Your task to perform on an android device: set an alarm Image 0: 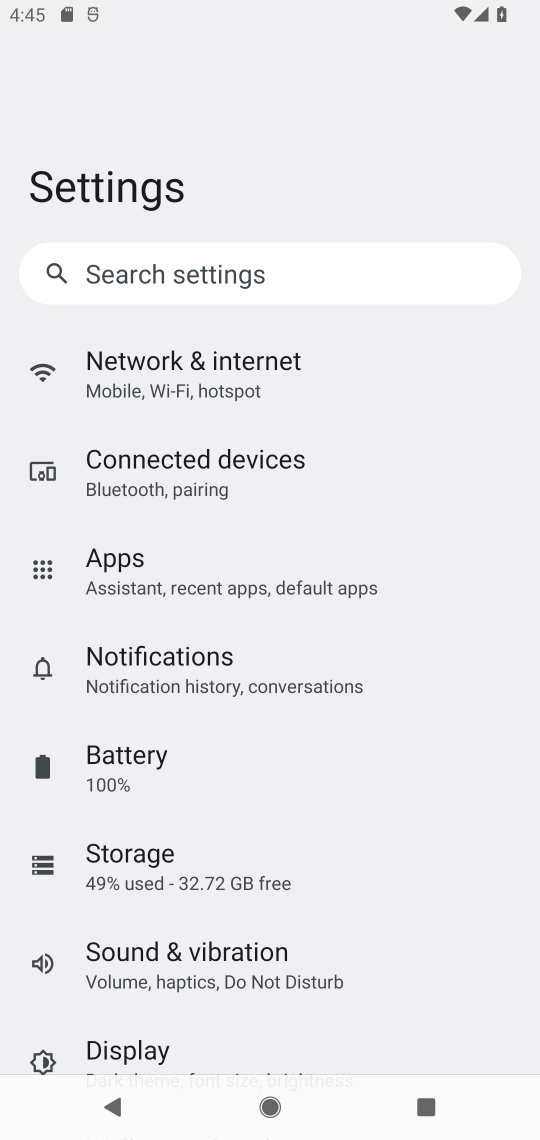
Step 0: press home button
Your task to perform on an android device: set an alarm Image 1: 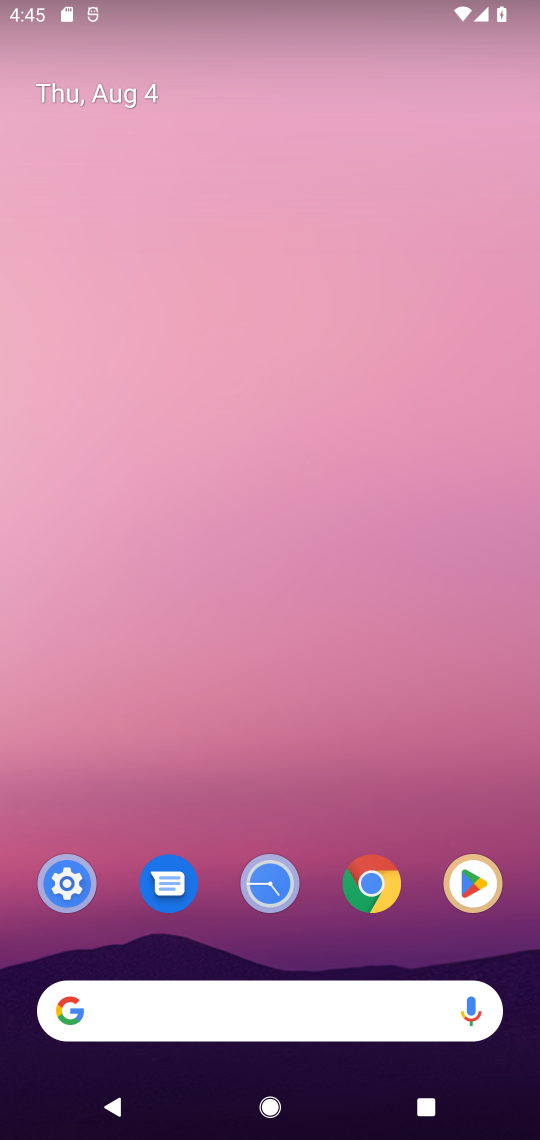
Step 1: drag from (232, 1055) to (363, 28)
Your task to perform on an android device: set an alarm Image 2: 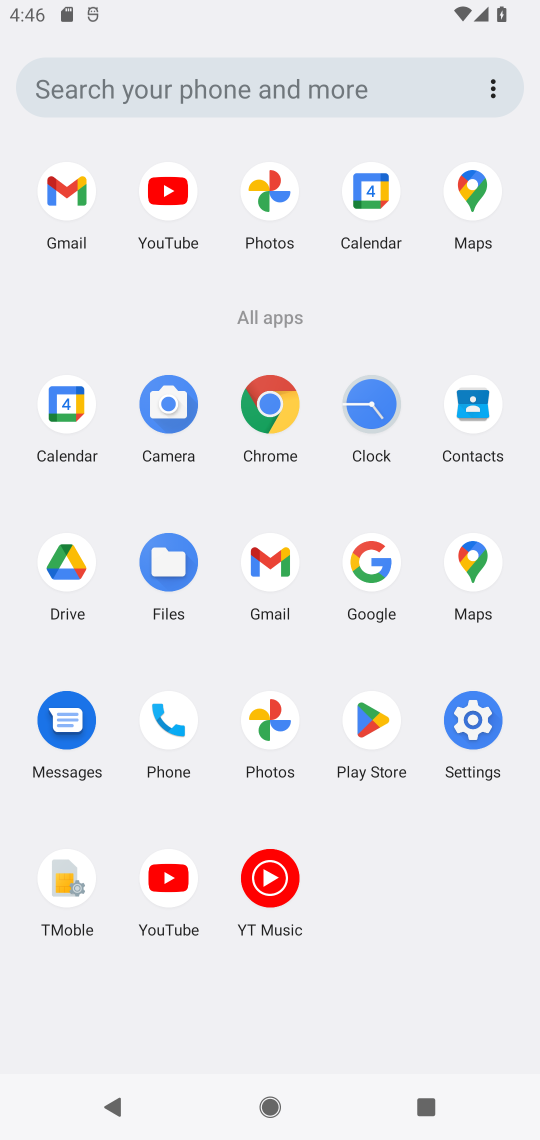
Step 2: click (362, 416)
Your task to perform on an android device: set an alarm Image 3: 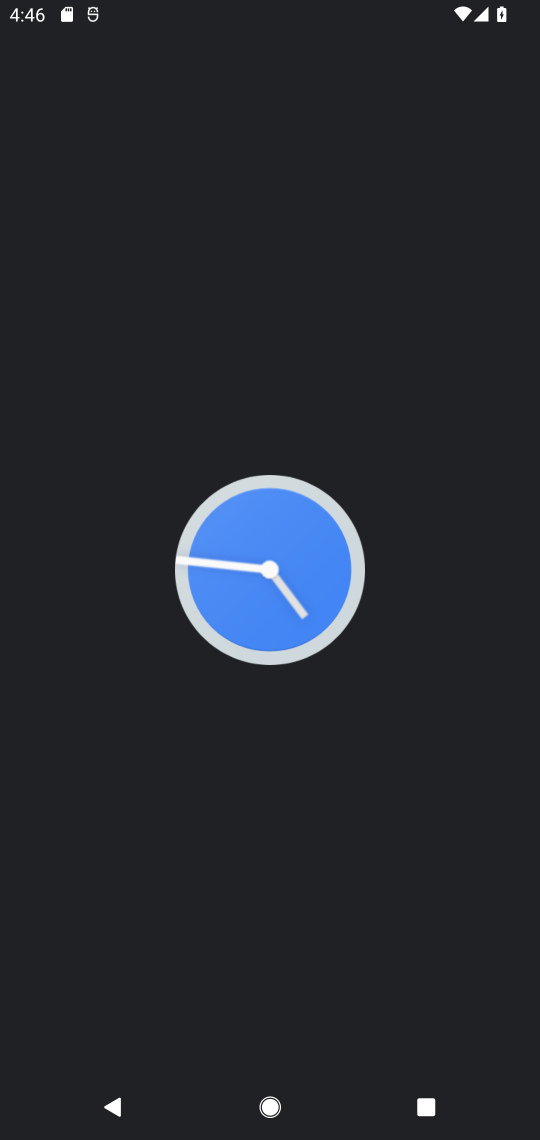
Step 3: click (362, 416)
Your task to perform on an android device: set an alarm Image 4: 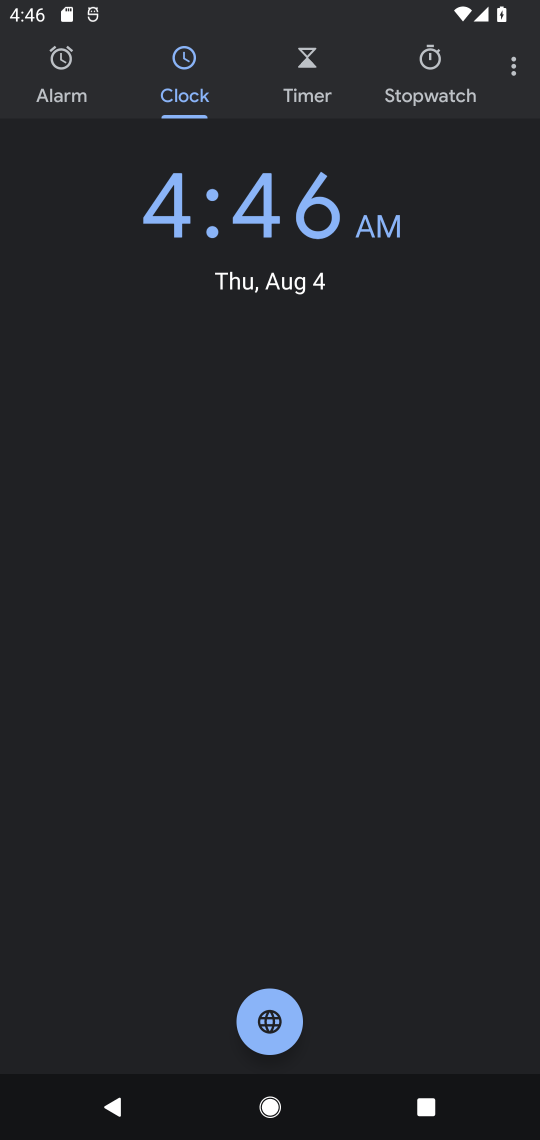
Step 4: click (74, 75)
Your task to perform on an android device: set an alarm Image 5: 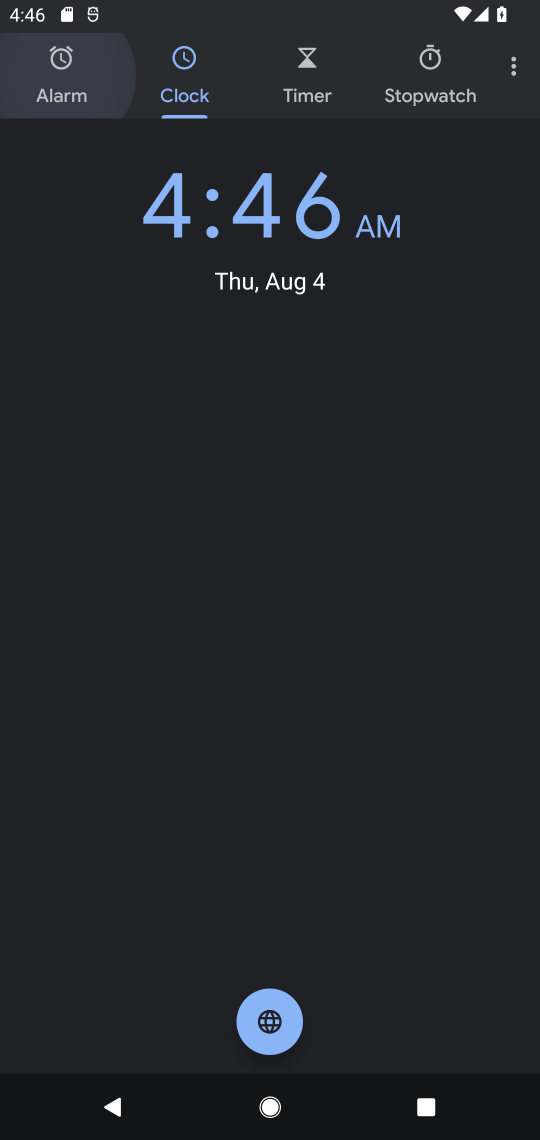
Step 5: click (74, 75)
Your task to perform on an android device: set an alarm Image 6: 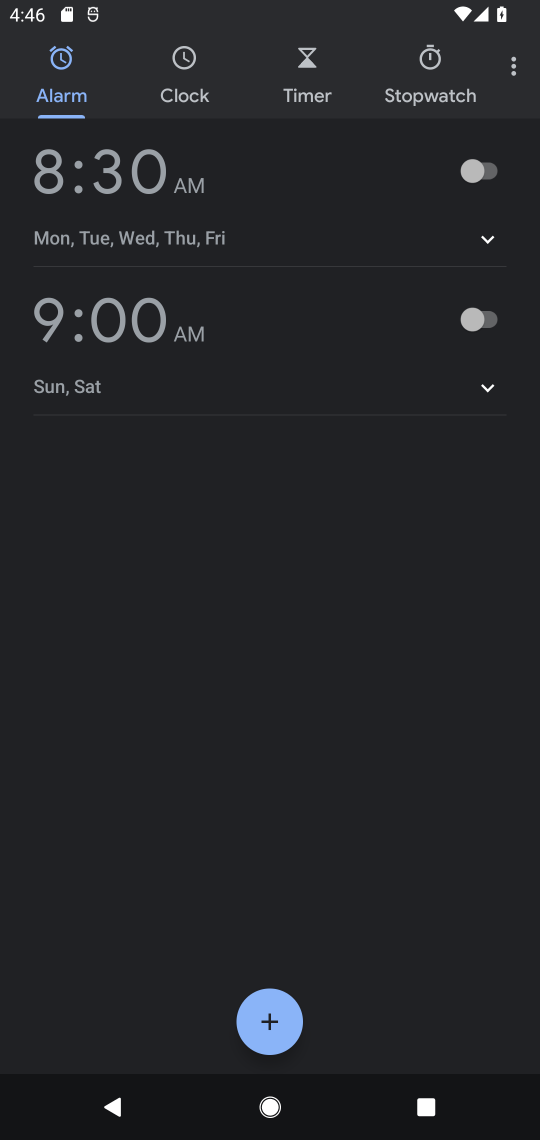
Step 6: task complete